Your task to perform on an android device: delete the emails in spam in the gmail app Image 0: 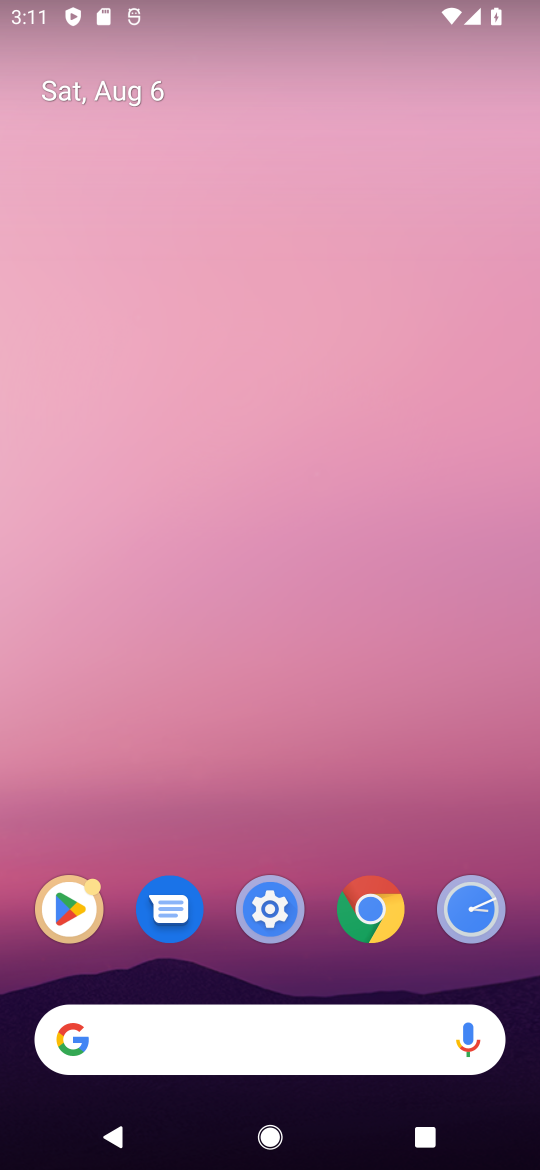
Step 0: drag from (254, 719) to (366, 5)
Your task to perform on an android device: delete the emails in spam in the gmail app Image 1: 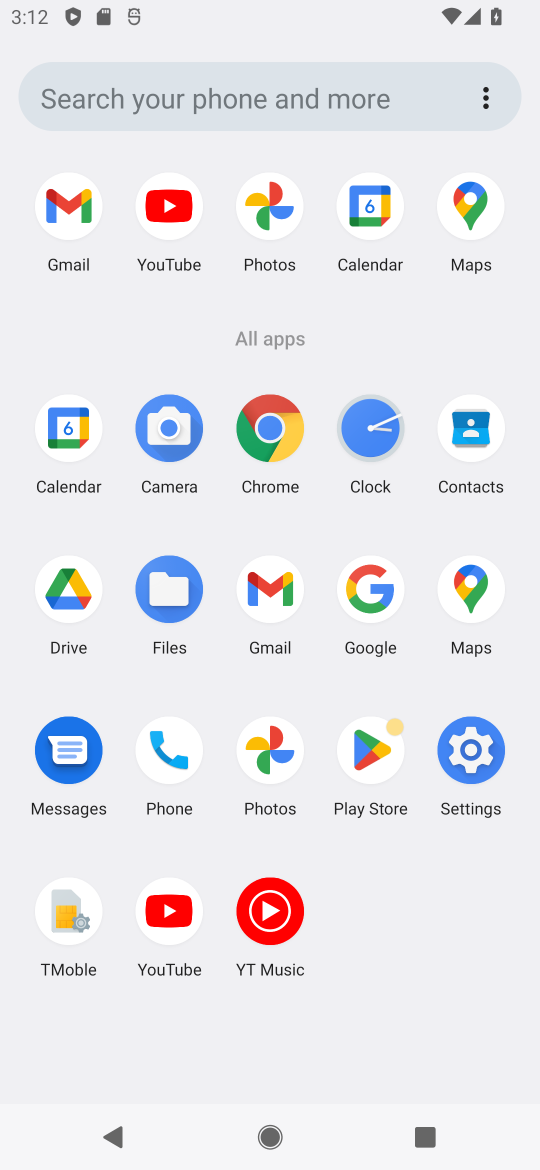
Step 1: click (62, 211)
Your task to perform on an android device: delete the emails in spam in the gmail app Image 2: 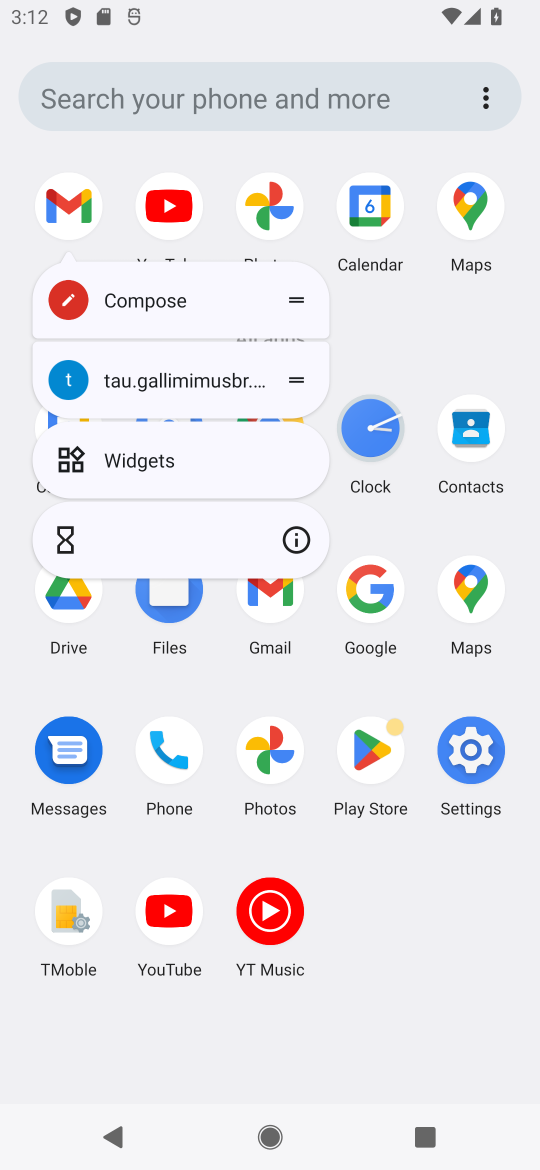
Step 2: click (77, 203)
Your task to perform on an android device: delete the emails in spam in the gmail app Image 3: 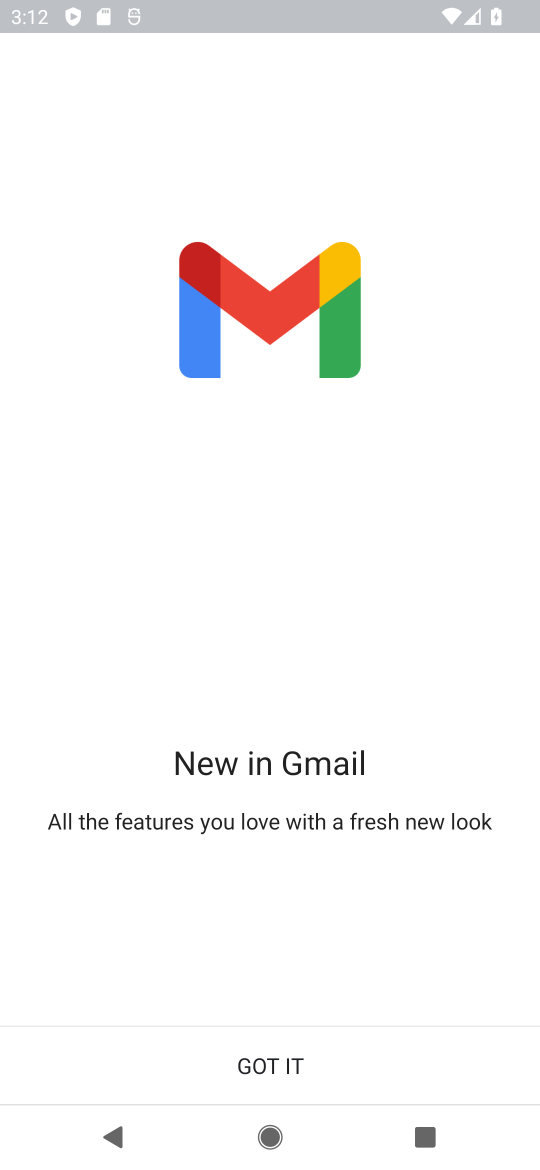
Step 3: click (274, 1062)
Your task to perform on an android device: delete the emails in spam in the gmail app Image 4: 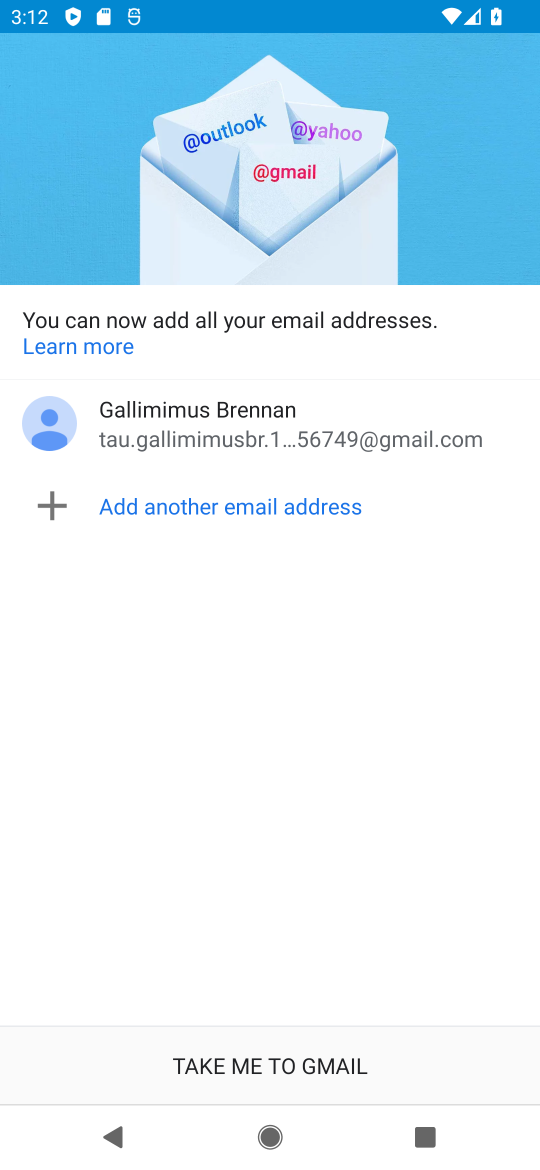
Step 4: click (237, 1057)
Your task to perform on an android device: delete the emails in spam in the gmail app Image 5: 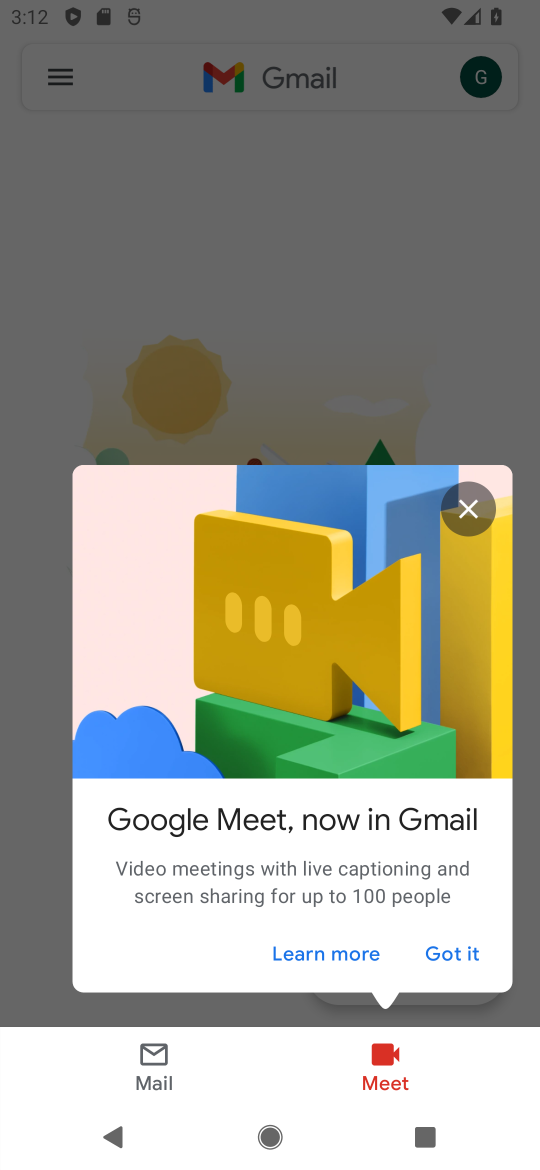
Step 5: click (58, 82)
Your task to perform on an android device: delete the emails in spam in the gmail app Image 6: 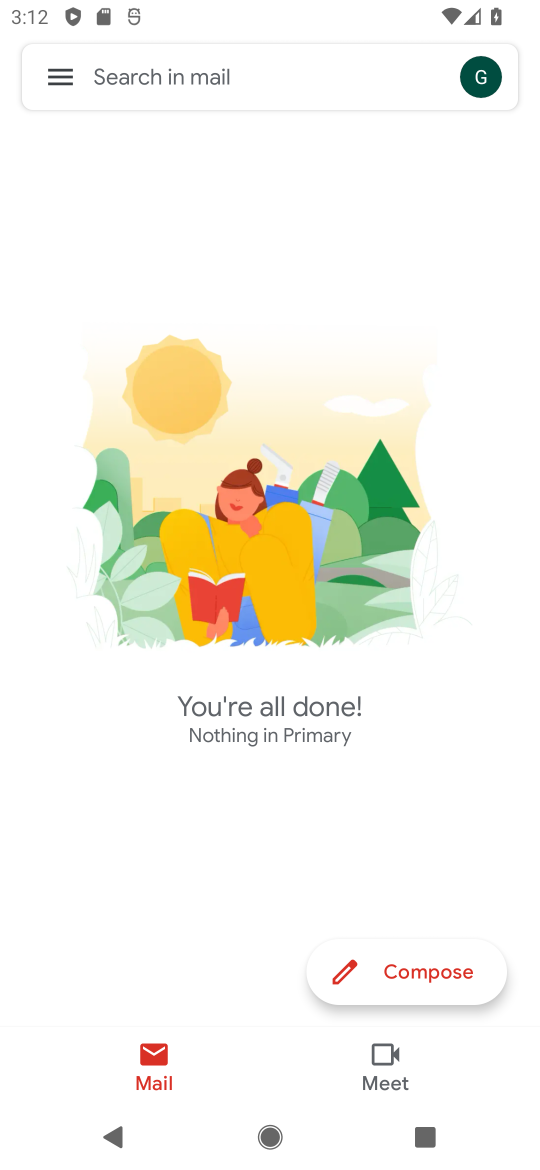
Step 6: click (59, 81)
Your task to perform on an android device: delete the emails in spam in the gmail app Image 7: 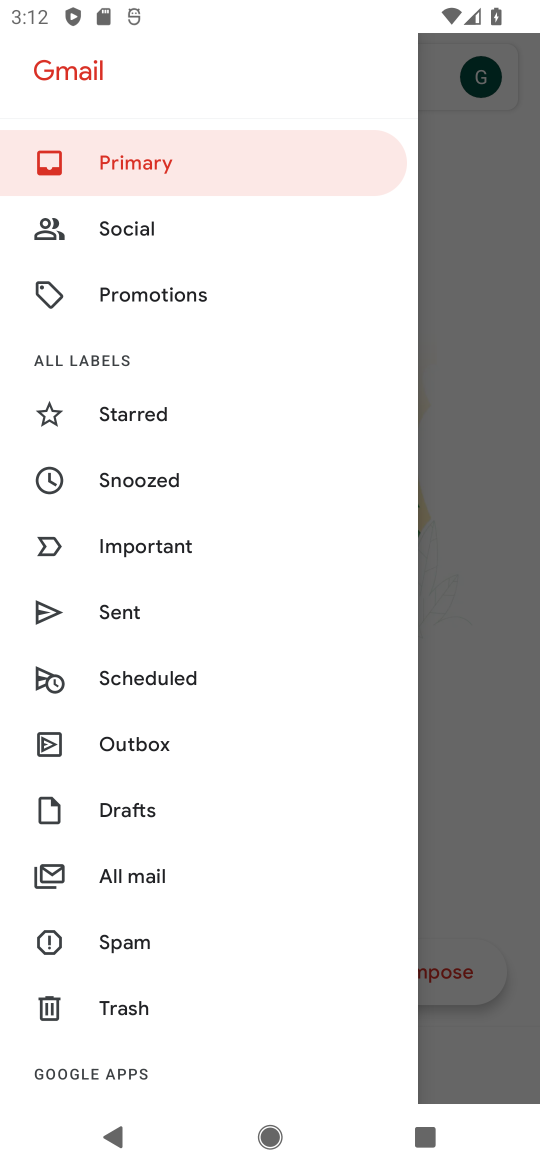
Step 7: click (126, 948)
Your task to perform on an android device: delete the emails in spam in the gmail app Image 8: 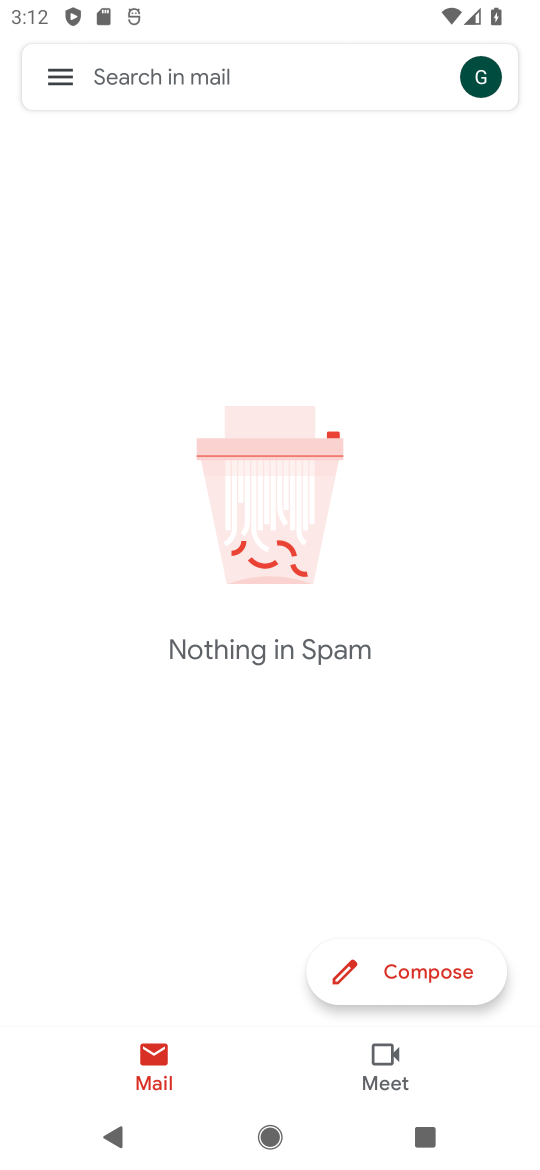
Step 8: task complete